Your task to perform on an android device: turn off translation in the chrome app Image 0: 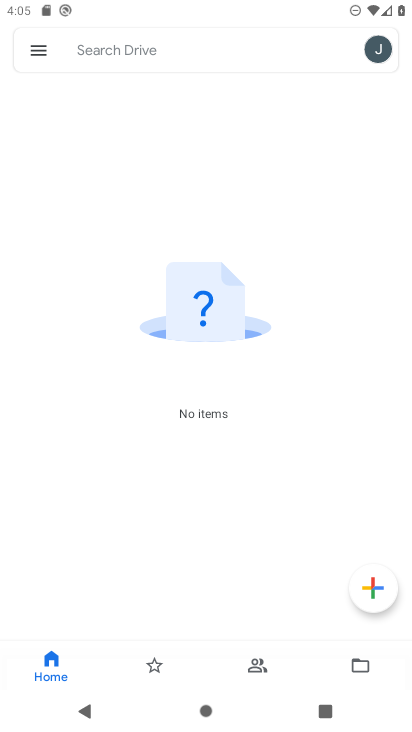
Step 0: press home button
Your task to perform on an android device: turn off translation in the chrome app Image 1: 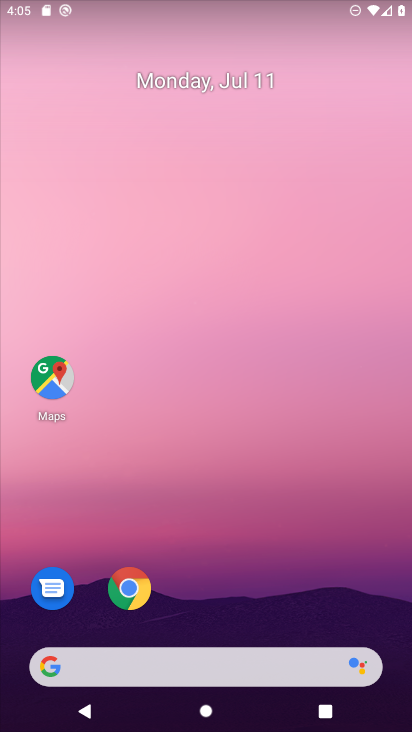
Step 1: click (121, 592)
Your task to perform on an android device: turn off translation in the chrome app Image 2: 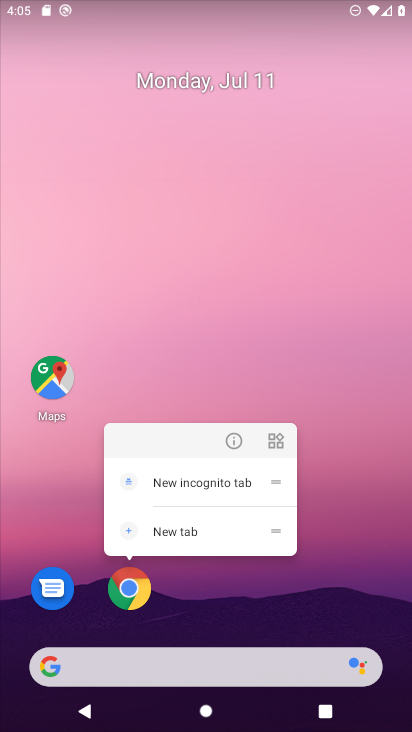
Step 2: click (121, 592)
Your task to perform on an android device: turn off translation in the chrome app Image 3: 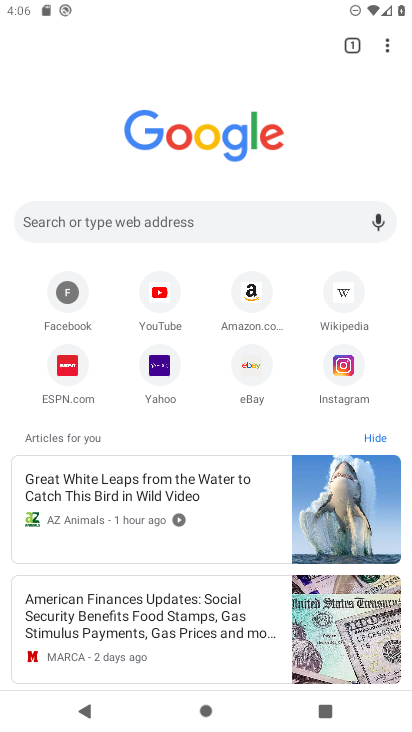
Step 3: drag from (390, 42) to (233, 428)
Your task to perform on an android device: turn off translation in the chrome app Image 4: 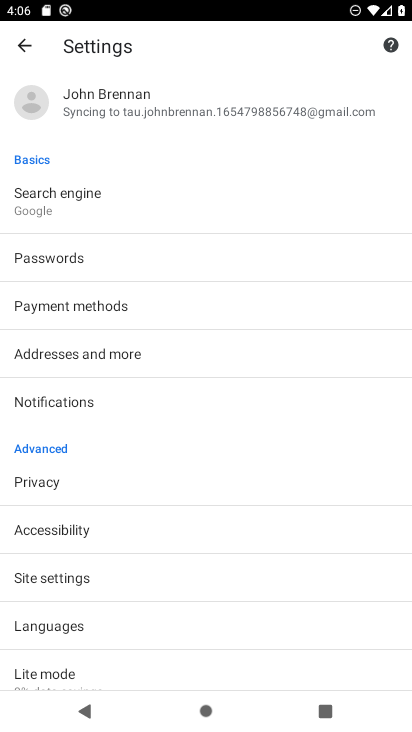
Step 4: drag from (172, 458) to (162, 136)
Your task to perform on an android device: turn off translation in the chrome app Image 5: 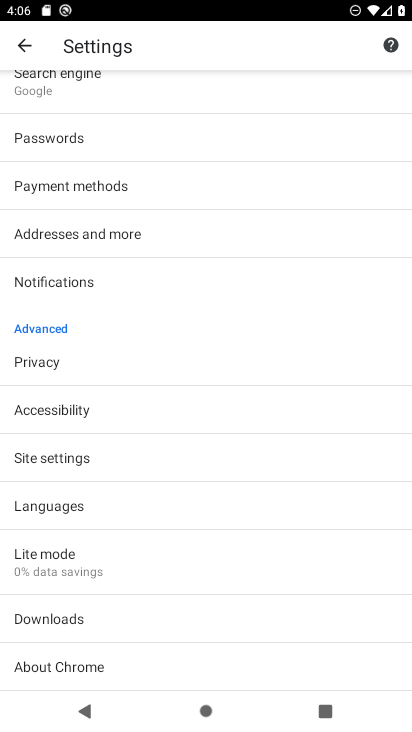
Step 5: click (45, 511)
Your task to perform on an android device: turn off translation in the chrome app Image 6: 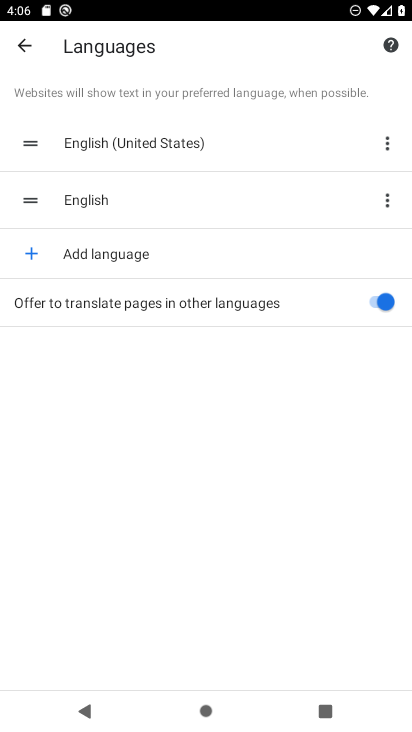
Step 6: click (381, 302)
Your task to perform on an android device: turn off translation in the chrome app Image 7: 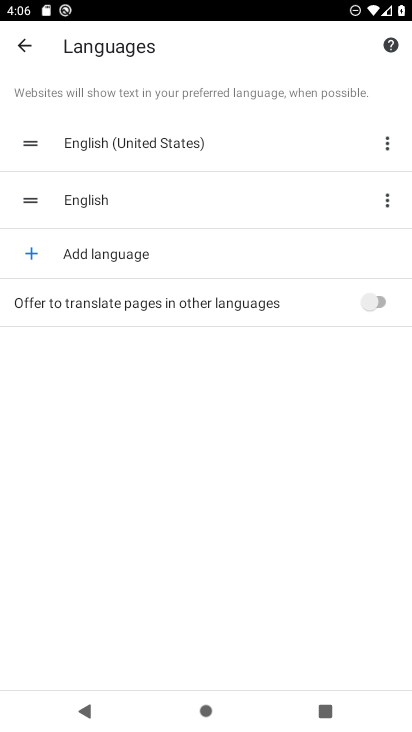
Step 7: task complete